Your task to perform on an android device: Search for pizza restaurants on Maps Image 0: 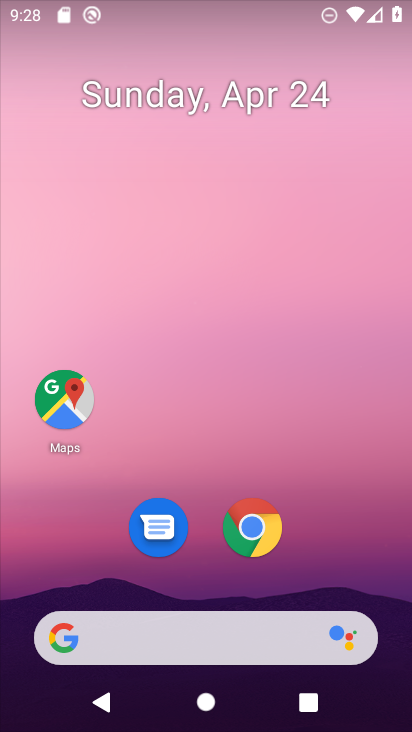
Step 0: drag from (390, 574) to (290, 40)
Your task to perform on an android device: Search for pizza restaurants on Maps Image 1: 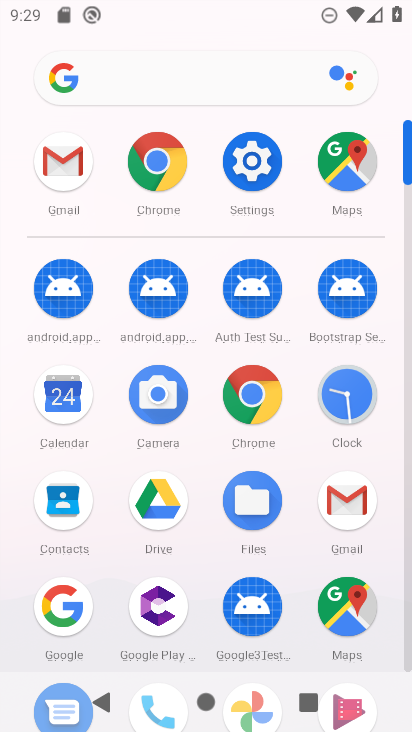
Step 1: click (345, 597)
Your task to perform on an android device: Search for pizza restaurants on Maps Image 2: 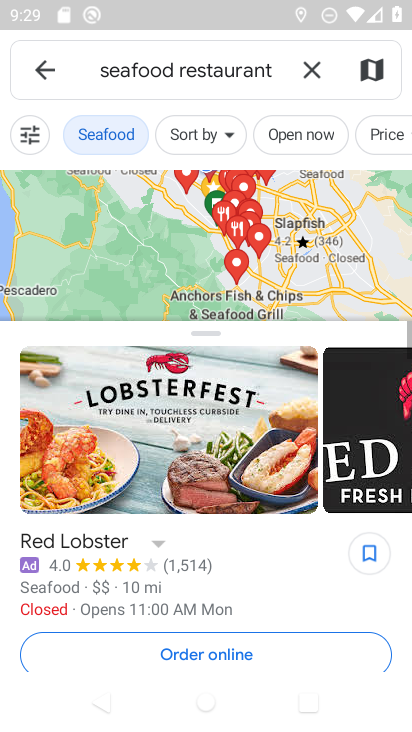
Step 2: click (302, 66)
Your task to perform on an android device: Search for pizza restaurants on Maps Image 3: 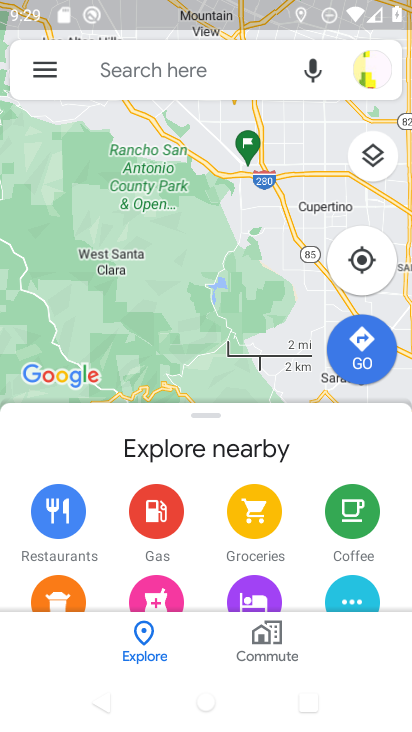
Step 3: click (188, 67)
Your task to perform on an android device: Search for pizza restaurants on Maps Image 4: 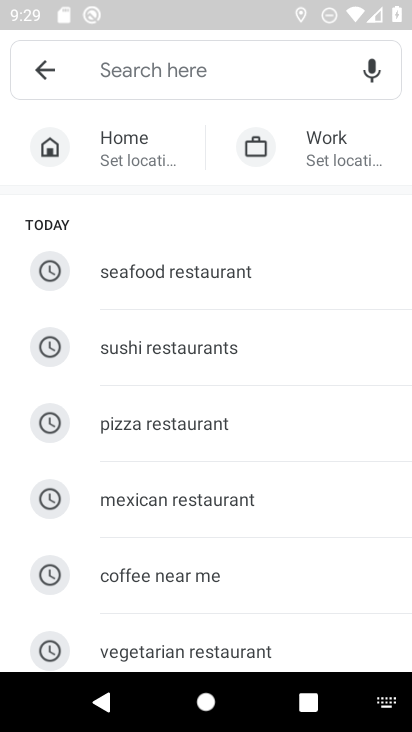
Step 4: click (196, 426)
Your task to perform on an android device: Search for pizza restaurants on Maps Image 5: 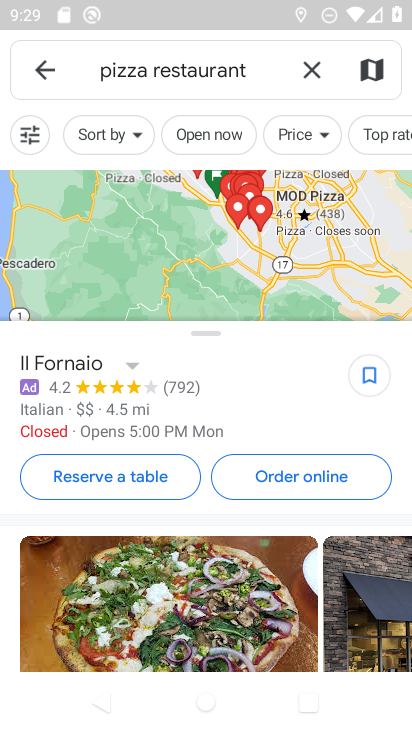
Step 5: task complete